Your task to perform on an android device: turn off data saver in the chrome app Image 0: 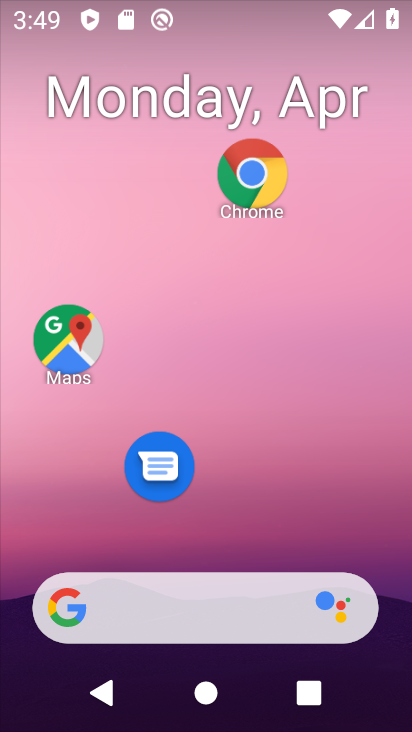
Step 0: click (270, 192)
Your task to perform on an android device: turn off data saver in the chrome app Image 1: 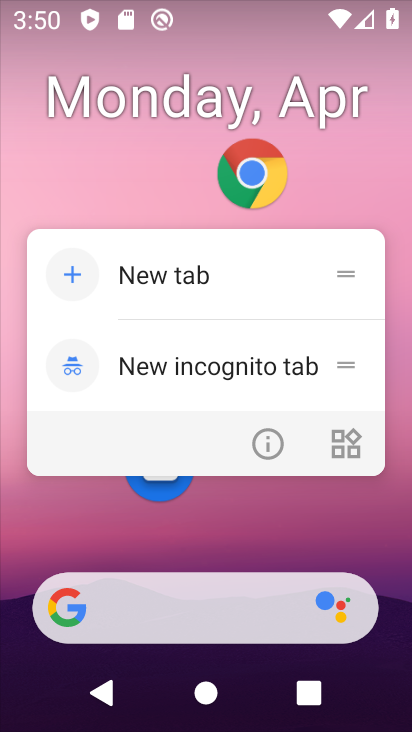
Step 1: click (270, 192)
Your task to perform on an android device: turn off data saver in the chrome app Image 2: 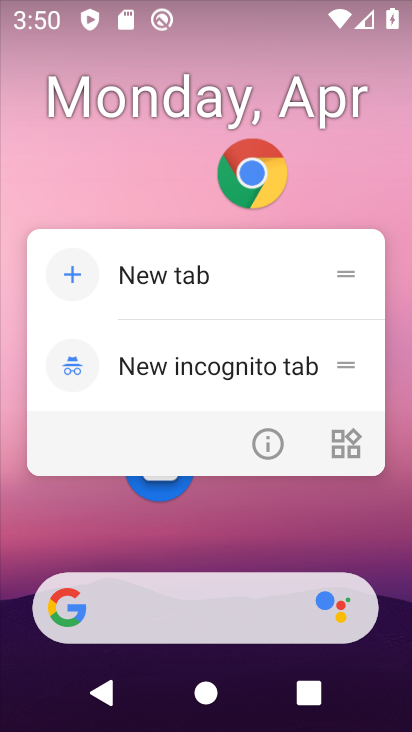
Step 2: click (255, 168)
Your task to perform on an android device: turn off data saver in the chrome app Image 3: 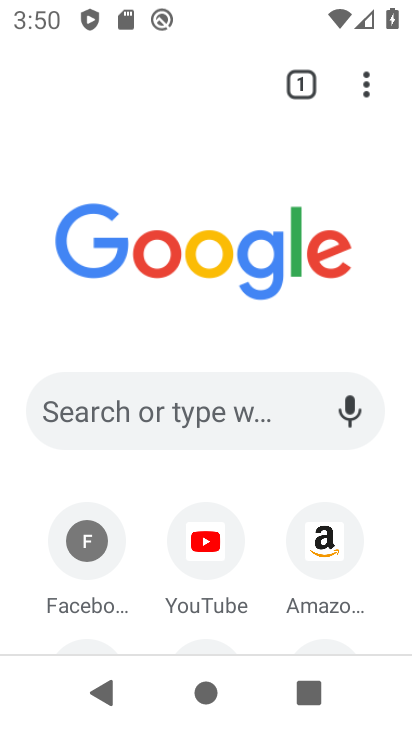
Step 3: click (360, 120)
Your task to perform on an android device: turn off data saver in the chrome app Image 4: 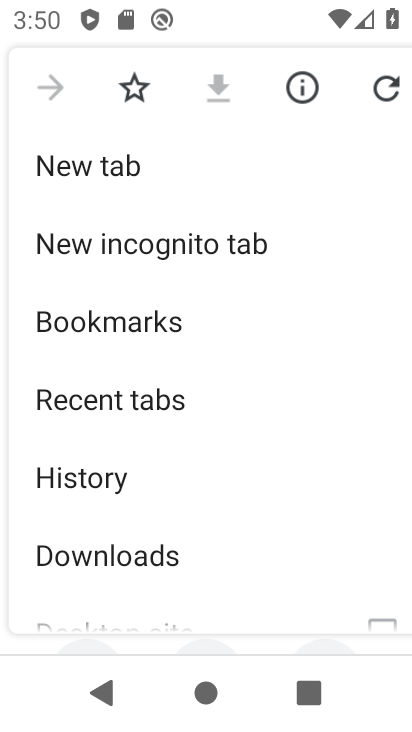
Step 4: drag from (235, 584) to (211, 157)
Your task to perform on an android device: turn off data saver in the chrome app Image 5: 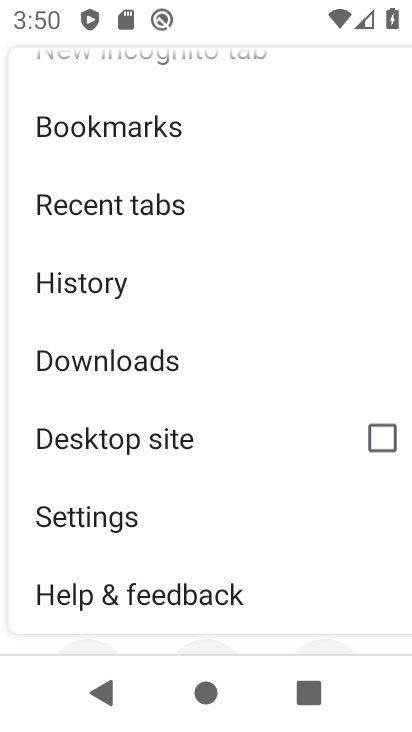
Step 5: click (193, 514)
Your task to perform on an android device: turn off data saver in the chrome app Image 6: 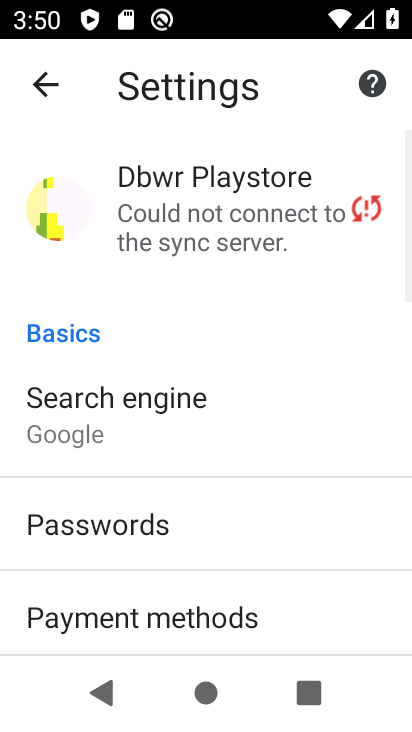
Step 6: drag from (254, 594) to (225, 199)
Your task to perform on an android device: turn off data saver in the chrome app Image 7: 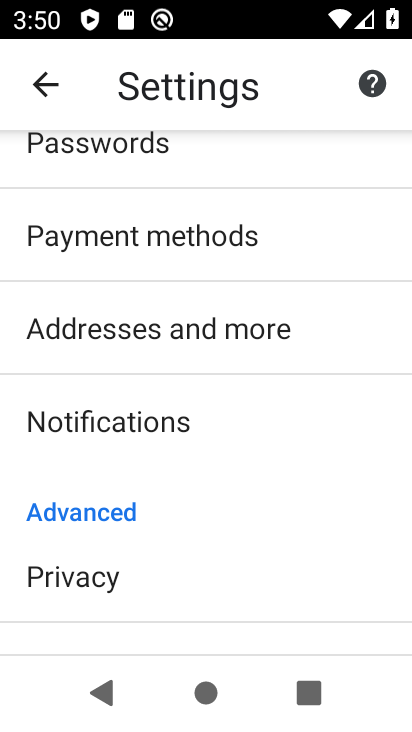
Step 7: drag from (319, 528) to (244, 204)
Your task to perform on an android device: turn off data saver in the chrome app Image 8: 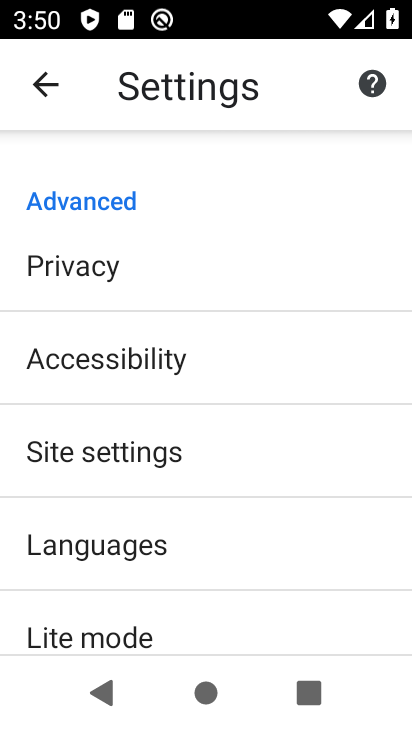
Step 8: click (225, 635)
Your task to perform on an android device: turn off data saver in the chrome app Image 9: 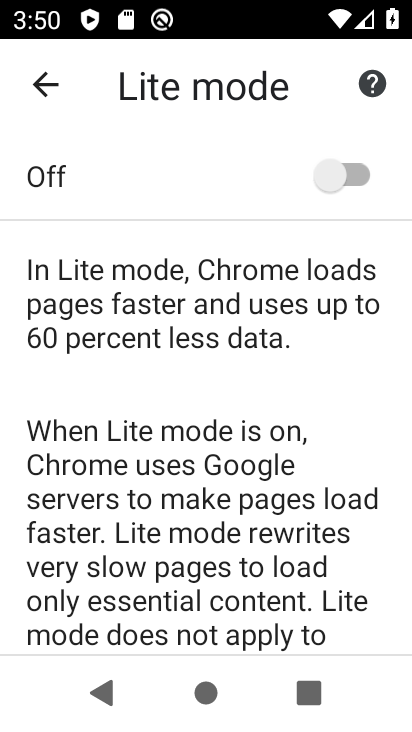
Step 9: task complete